Your task to perform on an android device: What's the weather today? Image 0: 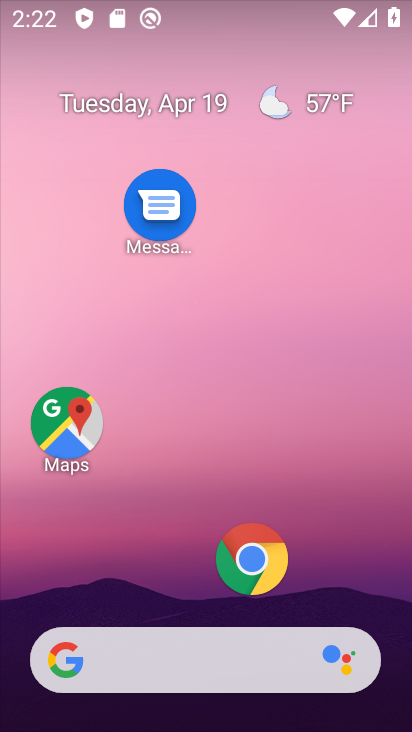
Step 0: drag from (147, 585) to (187, 214)
Your task to perform on an android device: What's the weather today? Image 1: 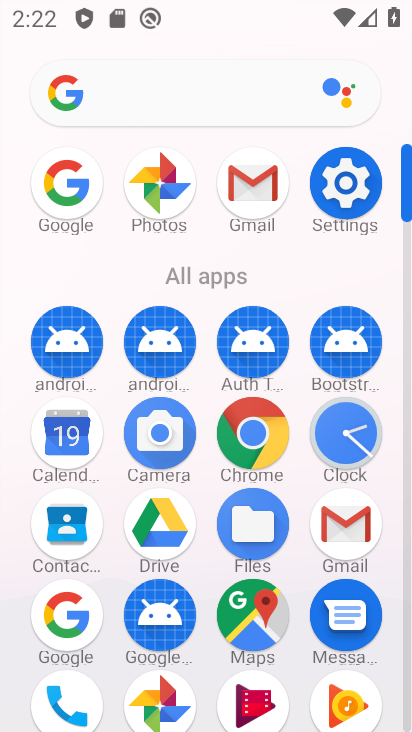
Step 1: click (59, 200)
Your task to perform on an android device: What's the weather today? Image 2: 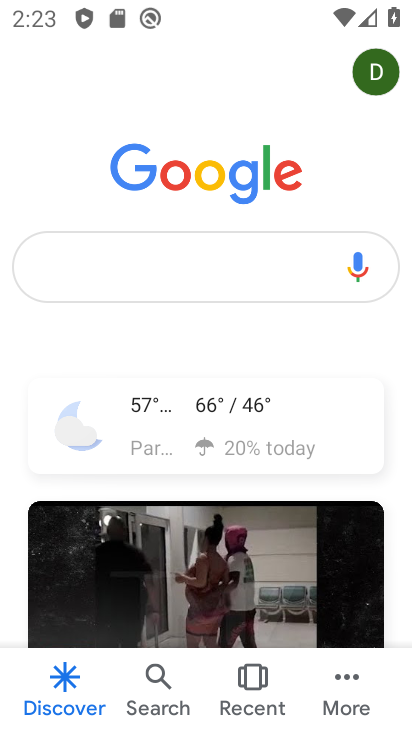
Step 2: click (172, 416)
Your task to perform on an android device: What's the weather today? Image 3: 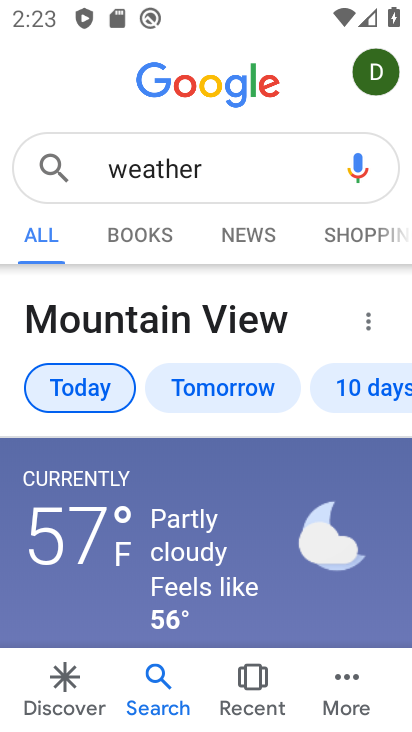
Step 3: click (204, 557)
Your task to perform on an android device: What's the weather today? Image 4: 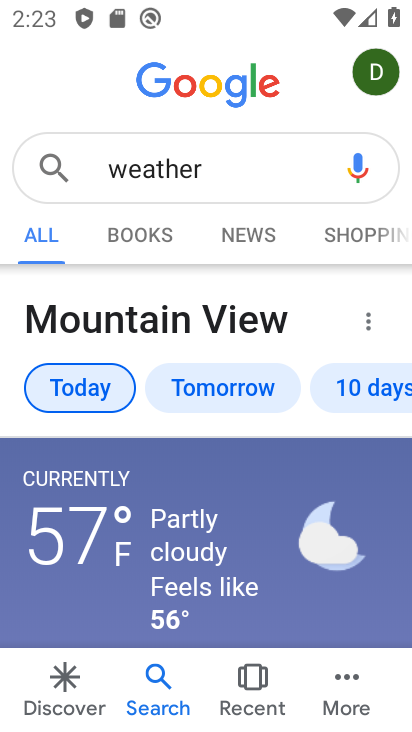
Step 4: task complete